Your task to perform on an android device: find photos in the google photos app Image 0: 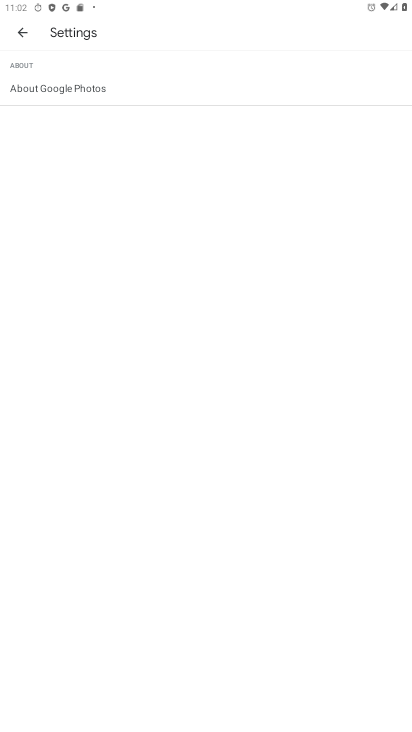
Step 0: press home button
Your task to perform on an android device: find photos in the google photos app Image 1: 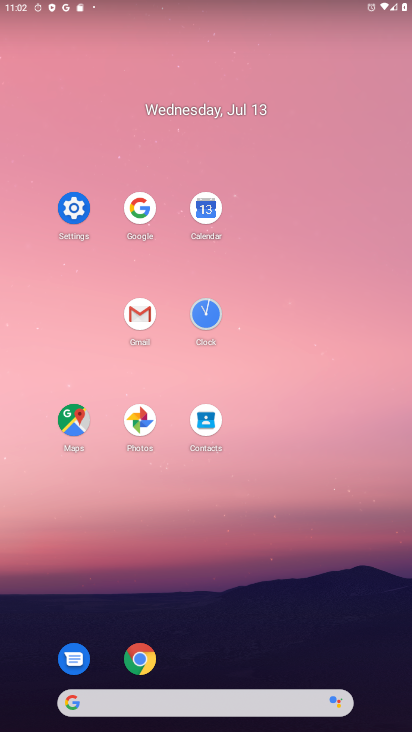
Step 1: click (134, 408)
Your task to perform on an android device: find photos in the google photos app Image 2: 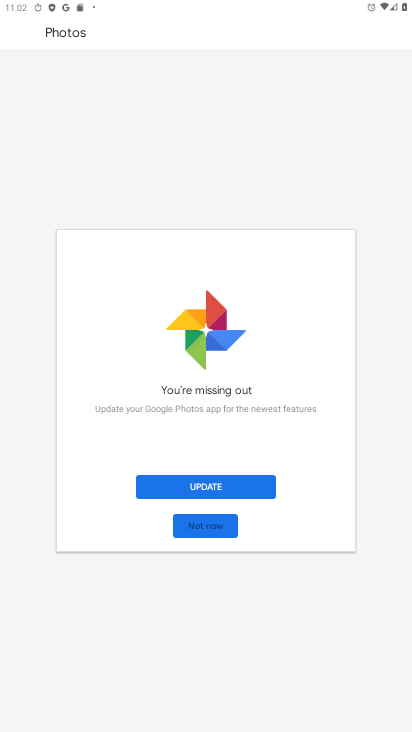
Step 2: click (318, 393)
Your task to perform on an android device: find photos in the google photos app Image 3: 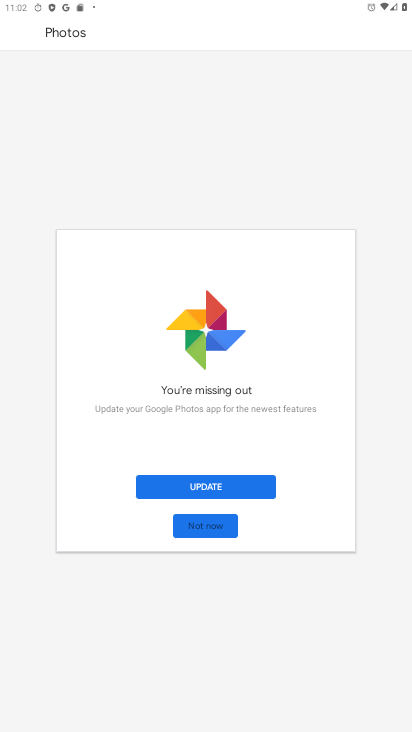
Step 3: click (236, 500)
Your task to perform on an android device: find photos in the google photos app Image 4: 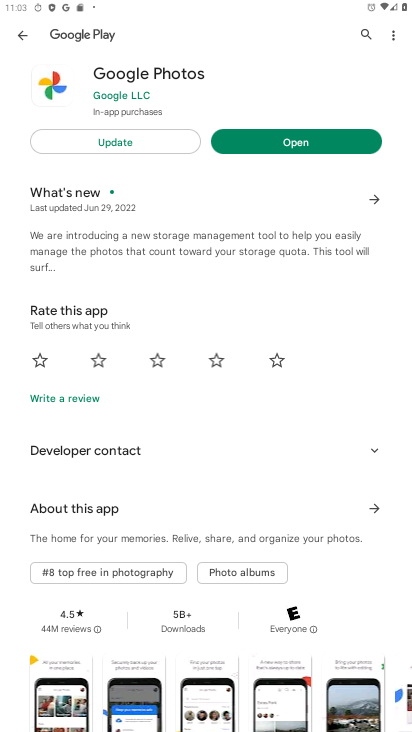
Step 4: click (176, 135)
Your task to perform on an android device: find photos in the google photos app Image 5: 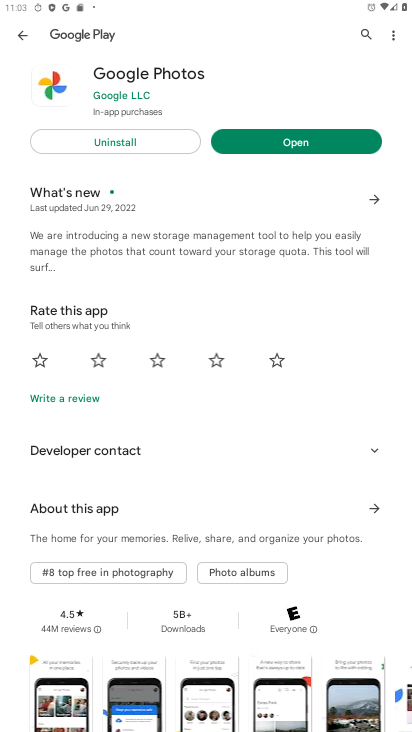
Step 5: click (306, 165)
Your task to perform on an android device: find photos in the google photos app Image 6: 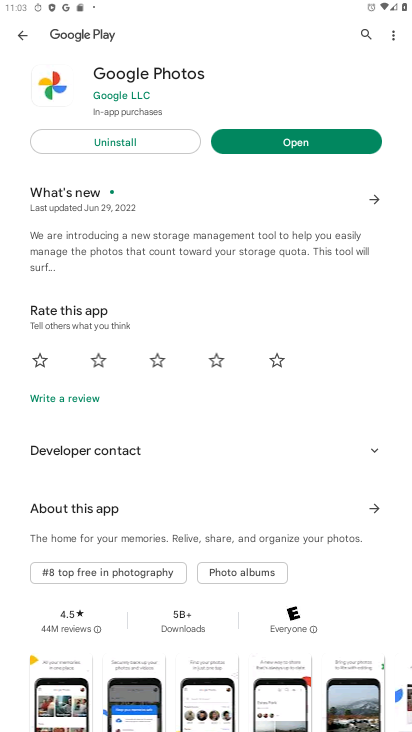
Step 6: click (300, 143)
Your task to perform on an android device: find photos in the google photos app Image 7: 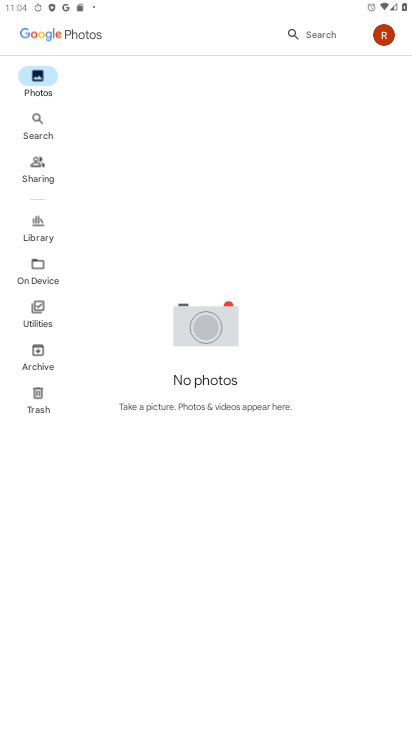
Step 7: task complete